Your task to perform on an android device: Open the web browser Image 0: 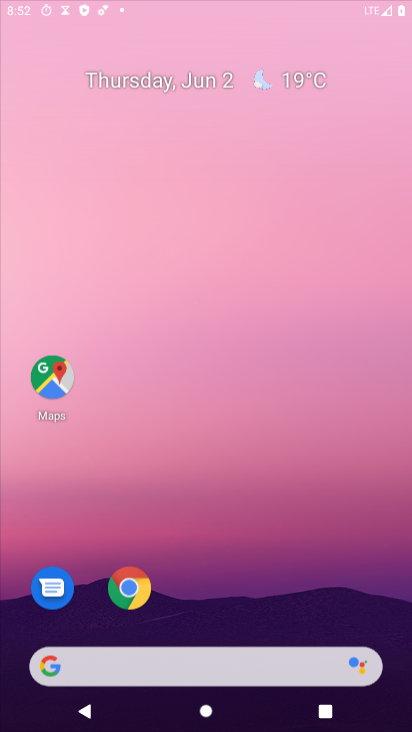
Step 0: click (264, 95)
Your task to perform on an android device: Open the web browser Image 1: 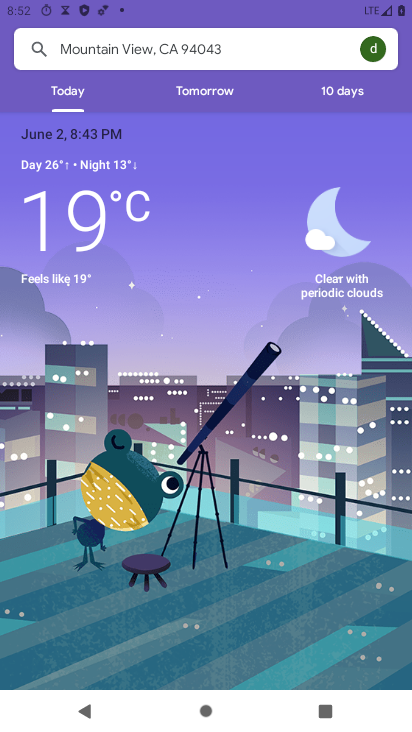
Step 1: press back button
Your task to perform on an android device: Open the web browser Image 2: 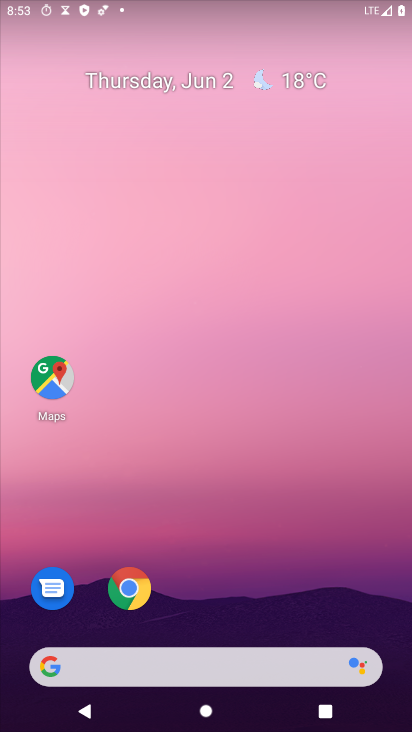
Step 2: click (121, 590)
Your task to perform on an android device: Open the web browser Image 3: 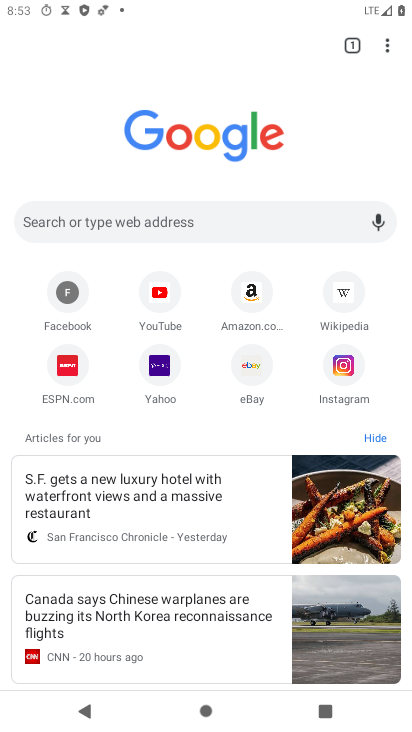
Step 3: task complete